Your task to perform on an android device: What's a good restaurant in Boston? Image 0: 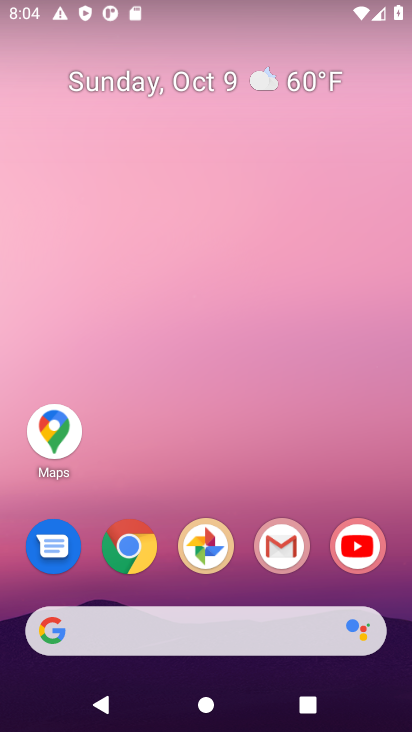
Step 0: click (145, 550)
Your task to perform on an android device: What's a good restaurant in Boston? Image 1: 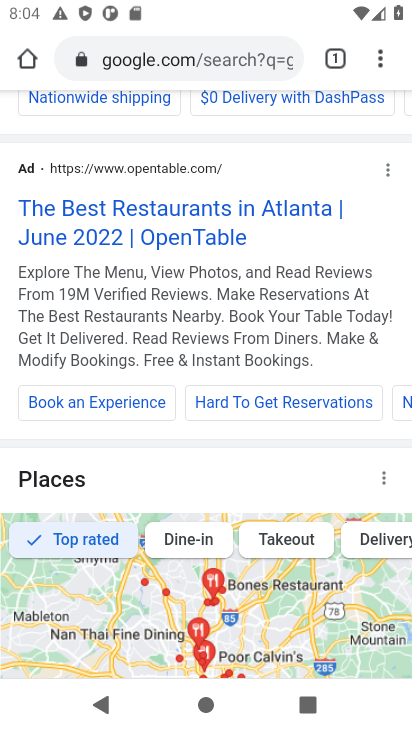
Step 1: click (232, 57)
Your task to perform on an android device: What's a good restaurant in Boston? Image 2: 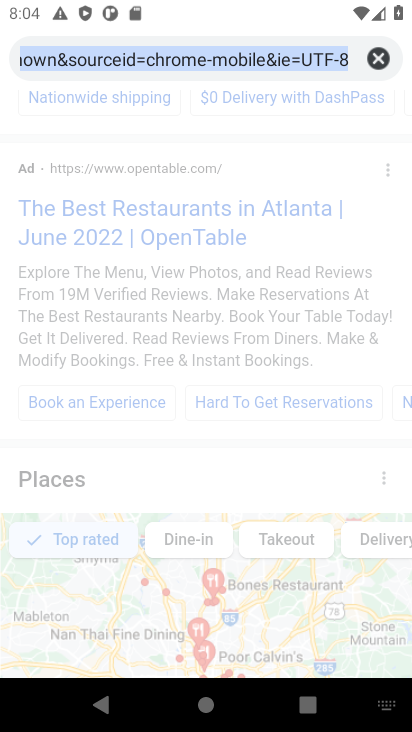
Step 2: type "good restaurant in boston"
Your task to perform on an android device: What's a good restaurant in Boston? Image 3: 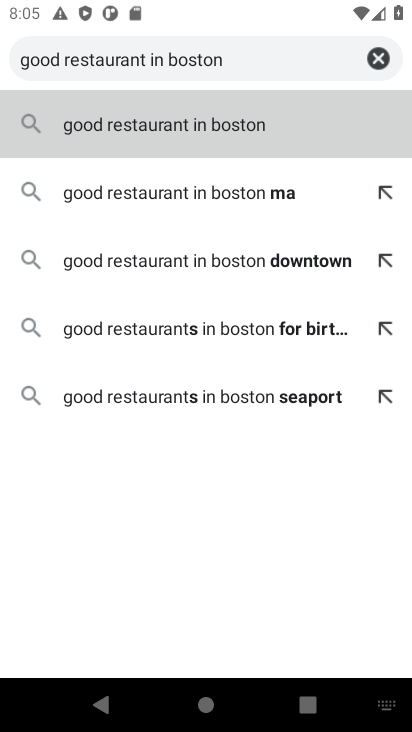
Step 3: type ""
Your task to perform on an android device: What's a good restaurant in Boston? Image 4: 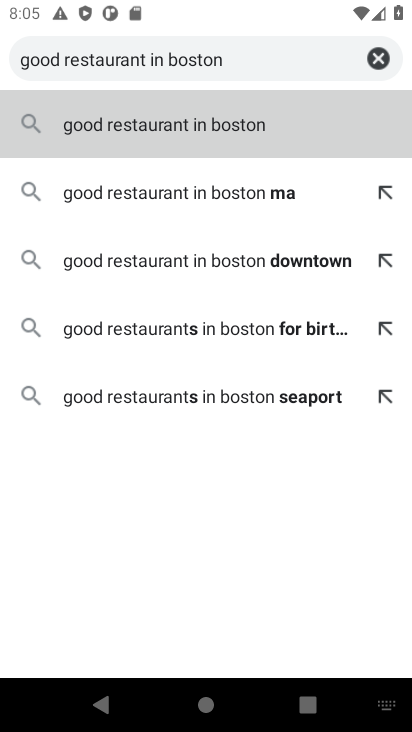
Step 4: press enter
Your task to perform on an android device: What's a good restaurant in Boston? Image 5: 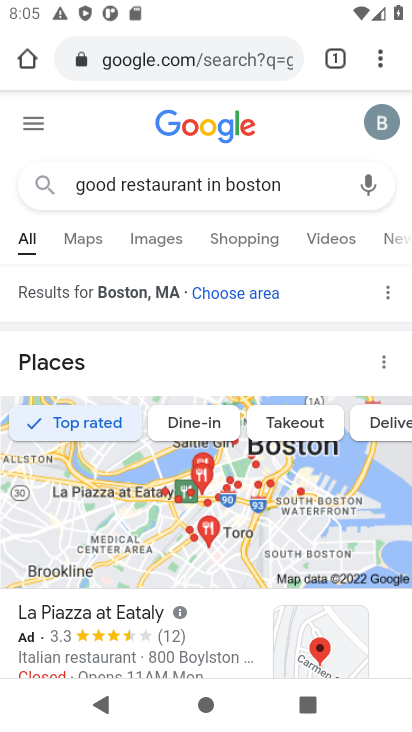
Step 5: drag from (294, 562) to (239, 188)
Your task to perform on an android device: What's a good restaurant in Boston? Image 6: 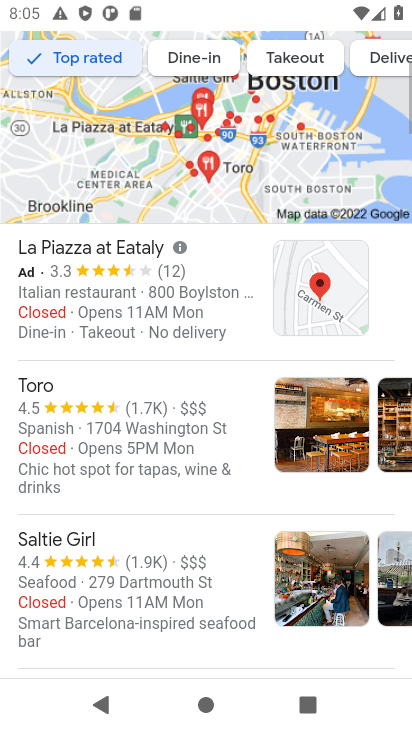
Step 6: drag from (232, 505) to (227, 186)
Your task to perform on an android device: What's a good restaurant in Boston? Image 7: 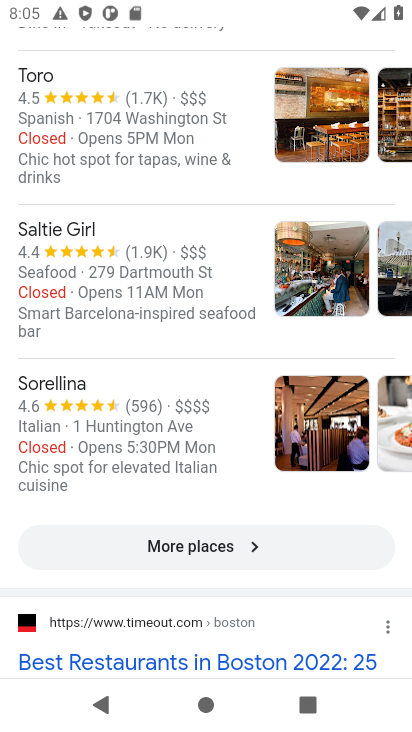
Step 7: drag from (212, 583) to (217, 237)
Your task to perform on an android device: What's a good restaurant in Boston? Image 8: 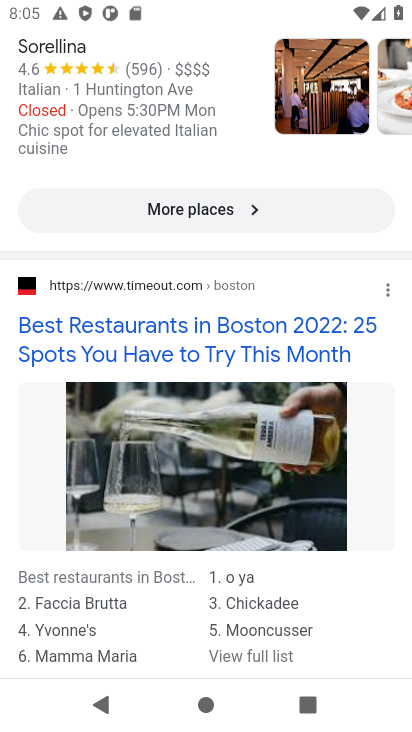
Step 8: click (199, 341)
Your task to perform on an android device: What's a good restaurant in Boston? Image 9: 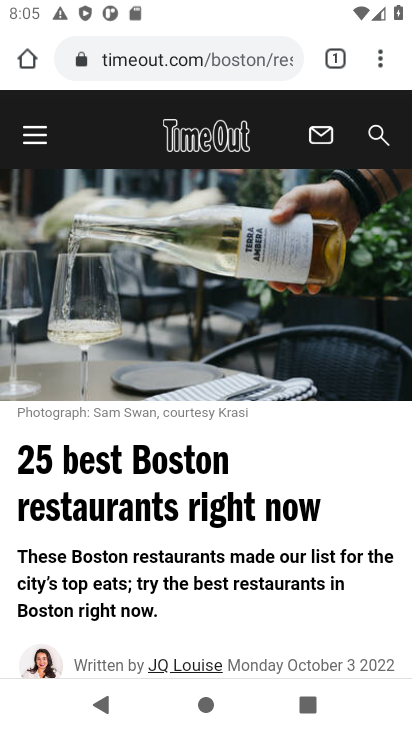
Step 9: drag from (208, 555) to (211, 451)
Your task to perform on an android device: What's a good restaurant in Boston? Image 10: 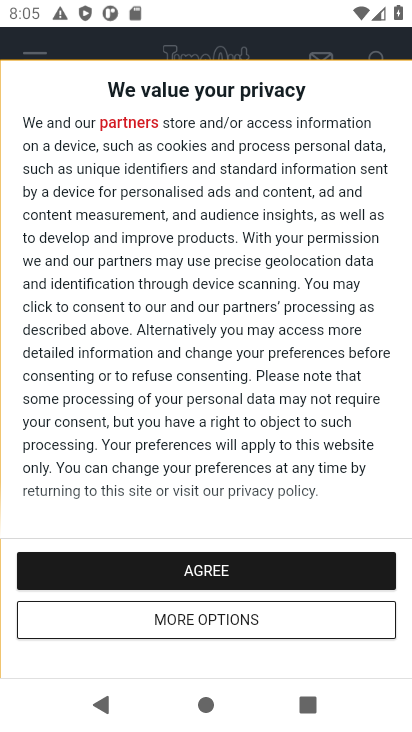
Step 10: click (178, 563)
Your task to perform on an android device: What's a good restaurant in Boston? Image 11: 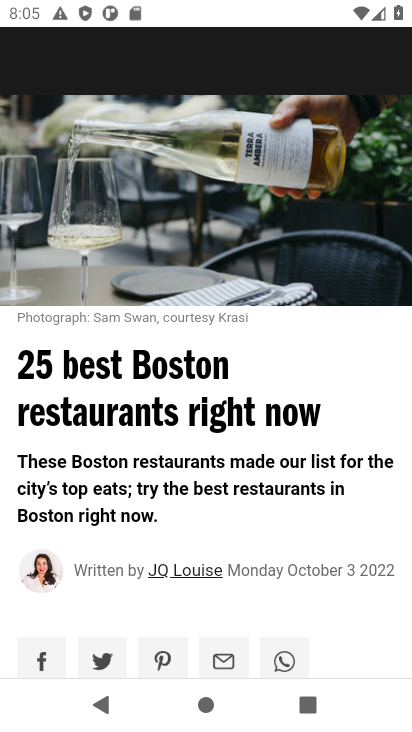
Step 11: task complete